Your task to perform on an android device: toggle airplane mode Image 0: 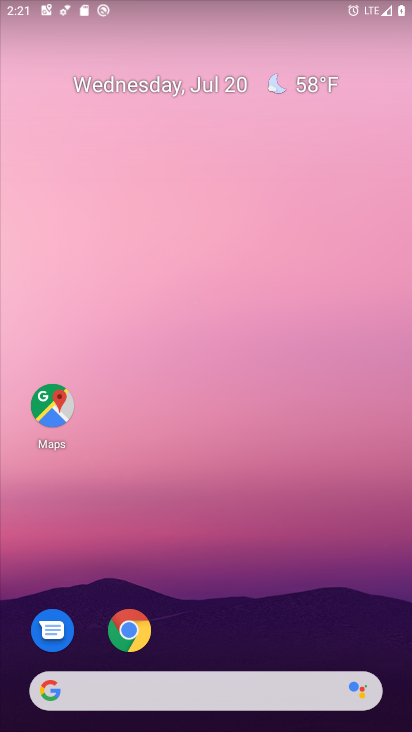
Step 0: drag from (277, 549) to (320, 189)
Your task to perform on an android device: toggle airplane mode Image 1: 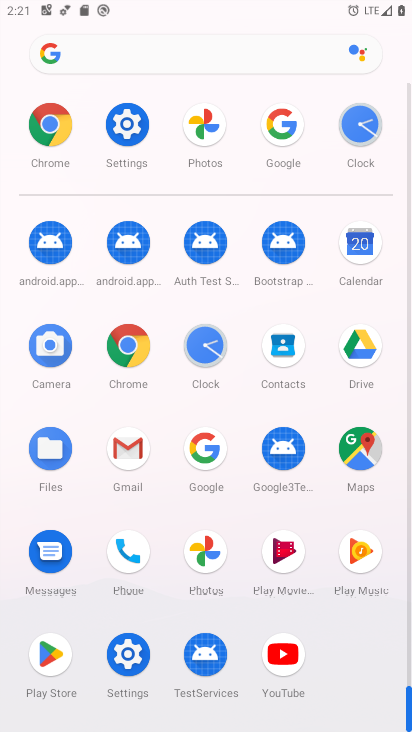
Step 1: click (115, 654)
Your task to perform on an android device: toggle airplane mode Image 2: 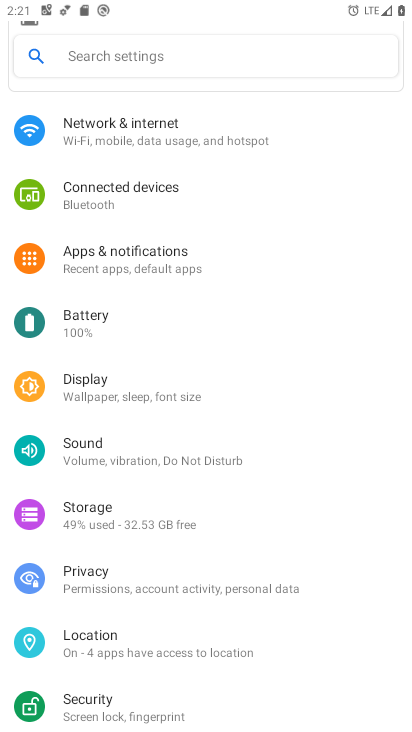
Step 2: drag from (151, 226) to (151, 571)
Your task to perform on an android device: toggle airplane mode Image 3: 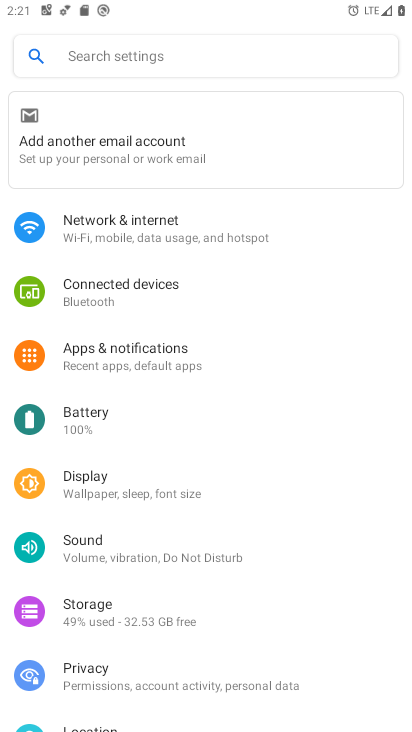
Step 3: click (150, 222)
Your task to perform on an android device: toggle airplane mode Image 4: 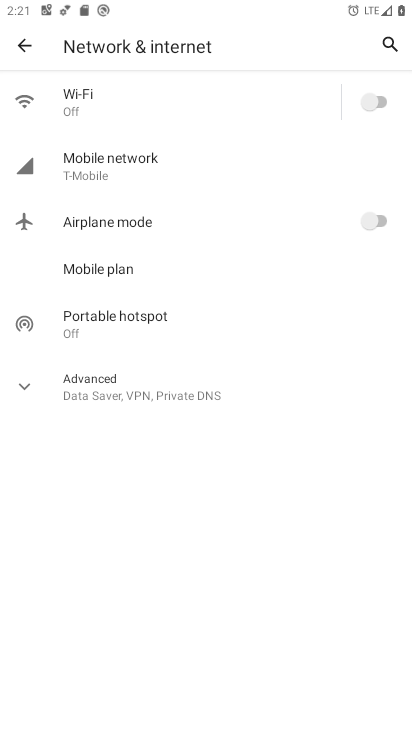
Step 4: click (204, 237)
Your task to perform on an android device: toggle airplane mode Image 5: 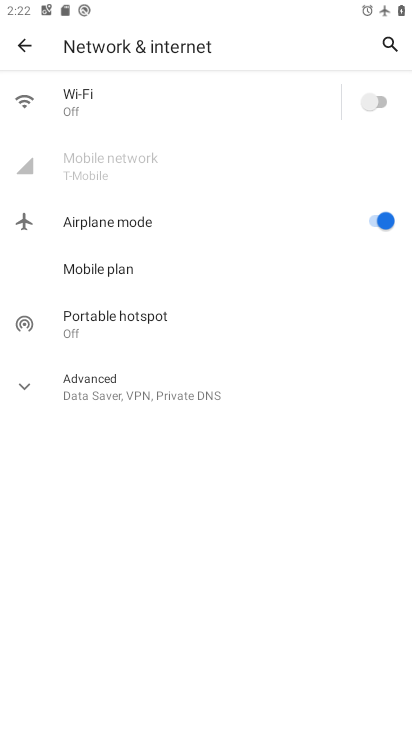
Step 5: task complete